Your task to perform on an android device: turn off translation in the chrome app Image 0: 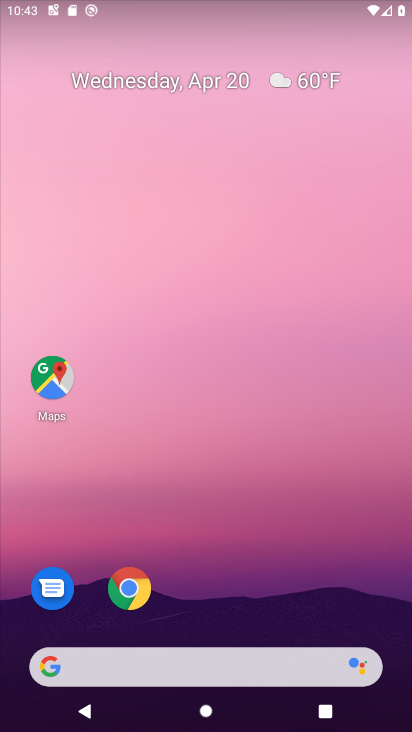
Step 0: click (132, 593)
Your task to perform on an android device: turn off translation in the chrome app Image 1: 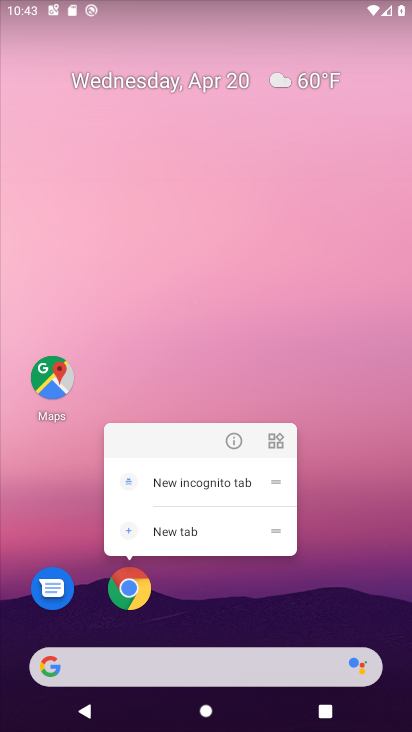
Step 1: click (130, 593)
Your task to perform on an android device: turn off translation in the chrome app Image 2: 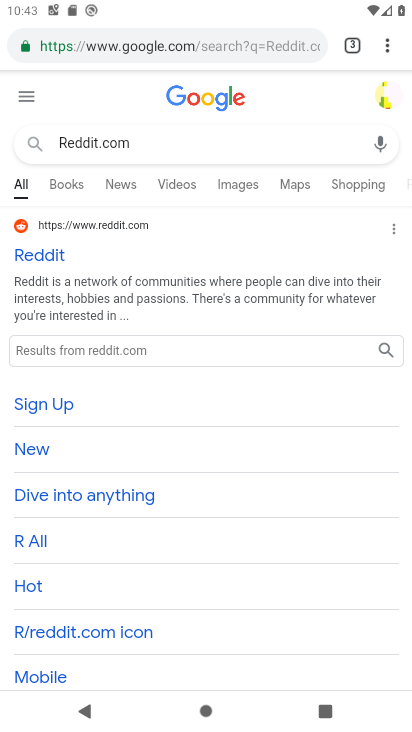
Step 2: click (387, 46)
Your task to perform on an android device: turn off translation in the chrome app Image 3: 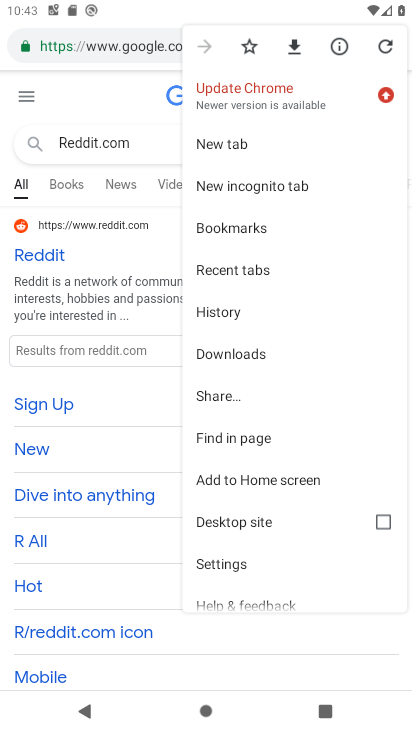
Step 3: click (232, 564)
Your task to perform on an android device: turn off translation in the chrome app Image 4: 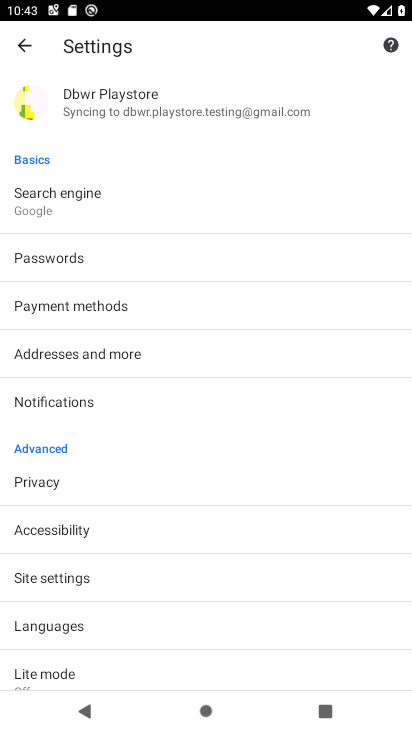
Step 4: click (54, 628)
Your task to perform on an android device: turn off translation in the chrome app Image 5: 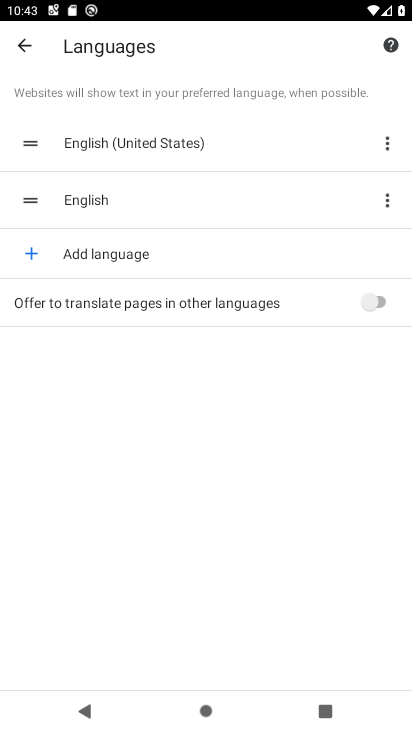
Step 5: task complete